Your task to perform on an android device: Search for the best fantasy books on Goodreads. Image 0: 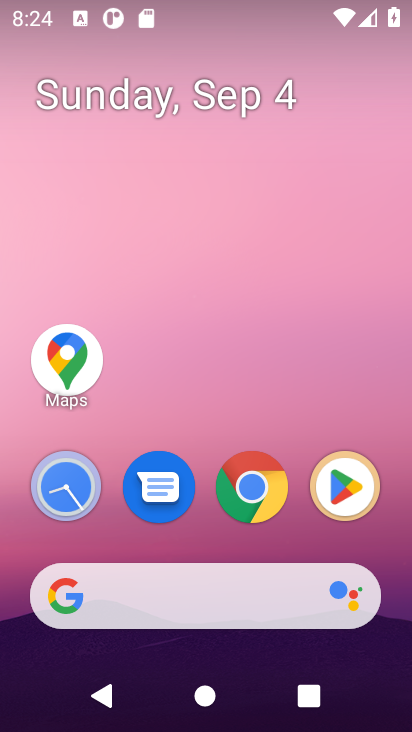
Step 0: click (202, 591)
Your task to perform on an android device: Search for the best fantasy books on Goodreads. Image 1: 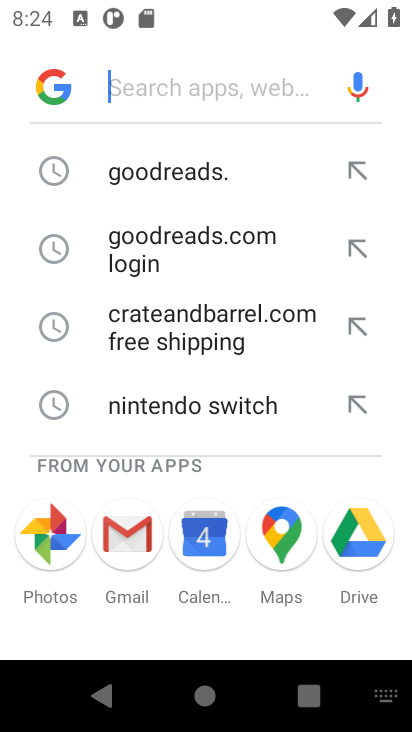
Step 1: type "goodreads.com"
Your task to perform on an android device: Search for the best fantasy books on Goodreads. Image 2: 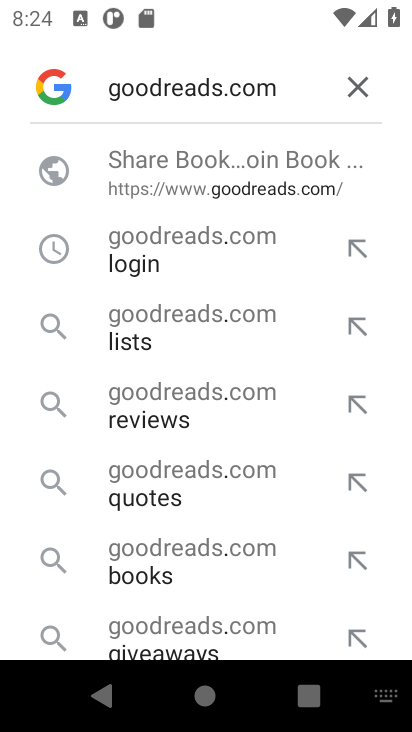
Step 2: click (213, 179)
Your task to perform on an android device: Search for the best fantasy books on Goodreads. Image 3: 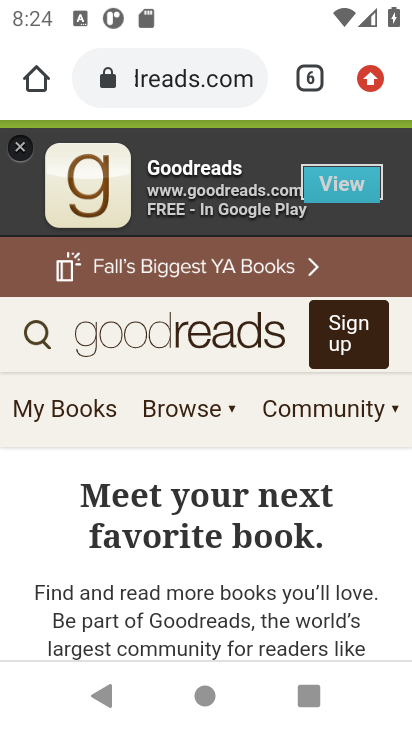
Step 3: click (42, 343)
Your task to perform on an android device: Search for the best fantasy books on Goodreads. Image 4: 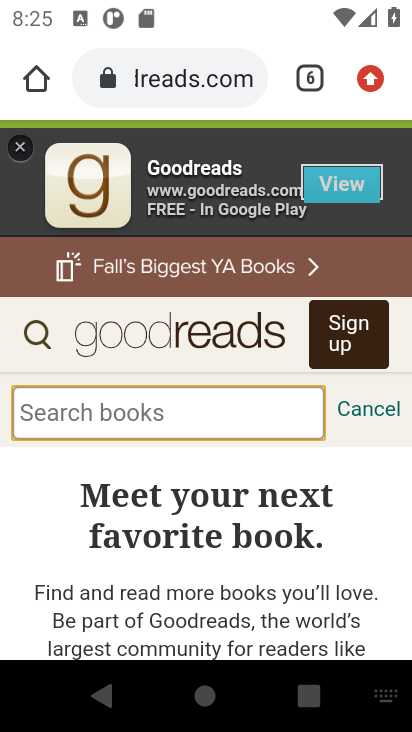
Step 4: type " best fantasy books"
Your task to perform on an android device: Search for the best fantasy books on Goodreads. Image 5: 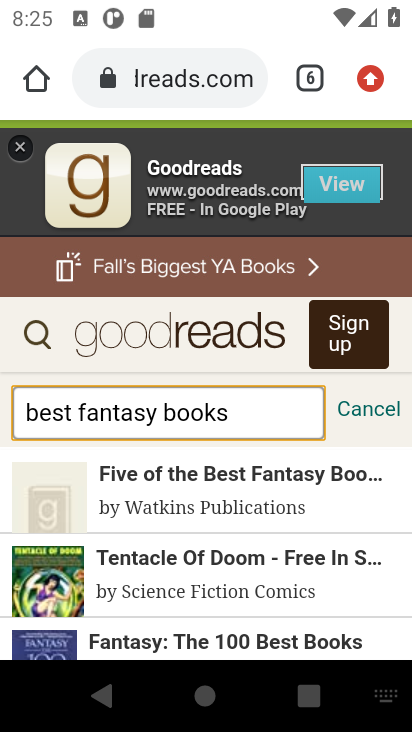
Step 5: click (181, 498)
Your task to perform on an android device: Search for the best fantasy books on Goodreads. Image 6: 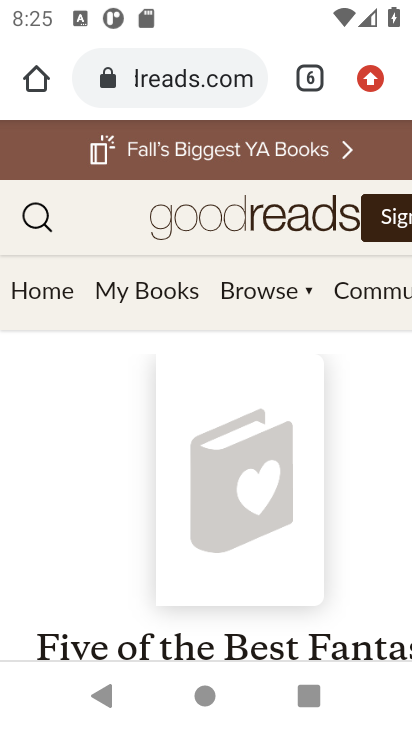
Step 6: task complete